Your task to perform on an android device: Show me popular games on the Play Store Image 0: 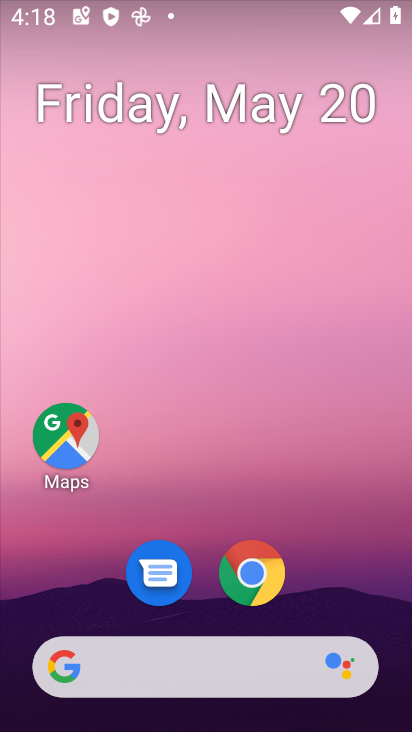
Step 0: drag from (388, 630) to (341, 187)
Your task to perform on an android device: Show me popular games on the Play Store Image 1: 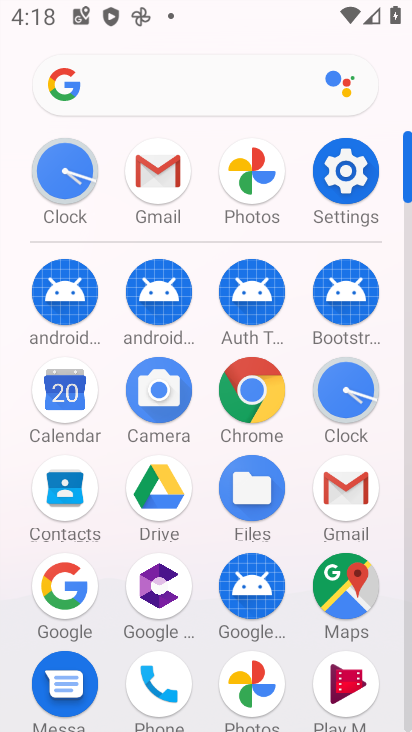
Step 1: click (408, 710)
Your task to perform on an android device: Show me popular games on the Play Store Image 2: 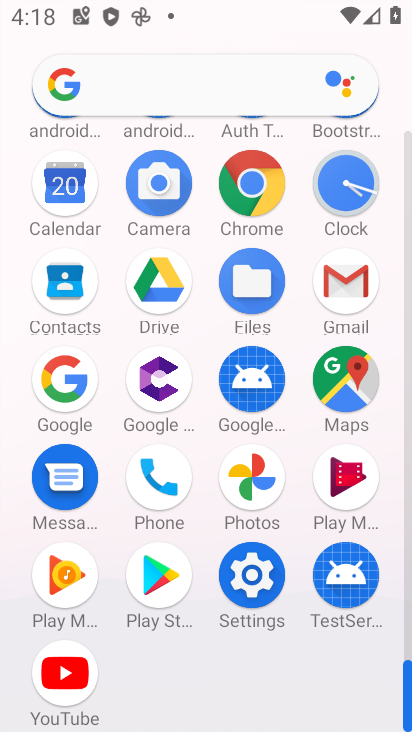
Step 2: click (161, 576)
Your task to perform on an android device: Show me popular games on the Play Store Image 3: 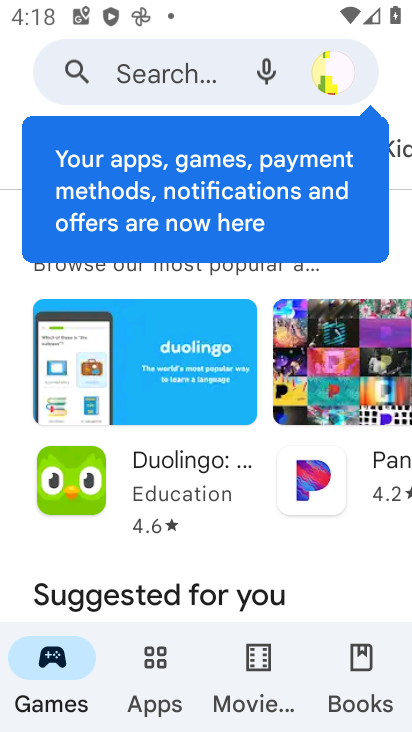
Step 3: drag from (261, 587) to (272, 83)
Your task to perform on an android device: Show me popular games on the Play Store Image 4: 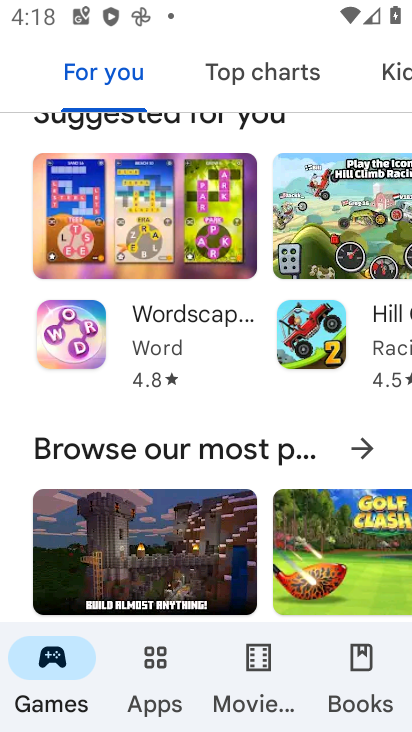
Step 4: click (365, 436)
Your task to perform on an android device: Show me popular games on the Play Store Image 5: 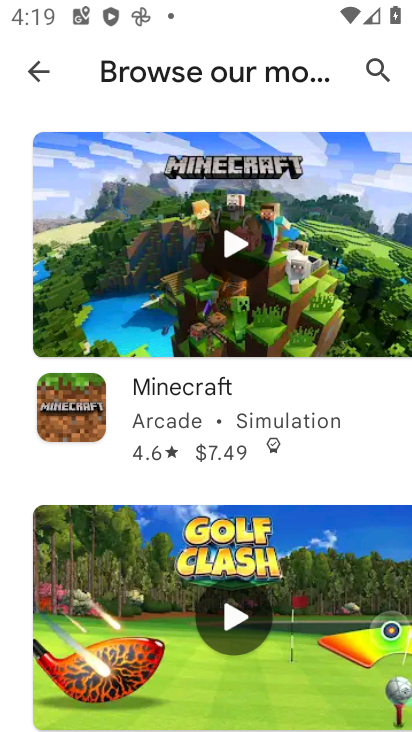
Step 5: task complete